Your task to perform on an android device: turn pop-ups on in chrome Image 0: 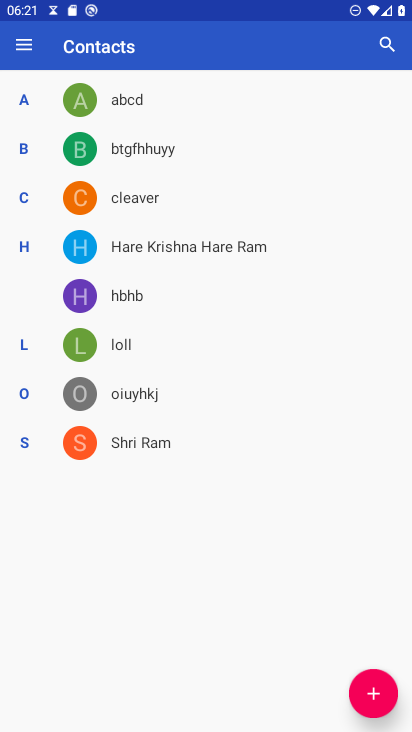
Step 0: press home button
Your task to perform on an android device: turn pop-ups on in chrome Image 1: 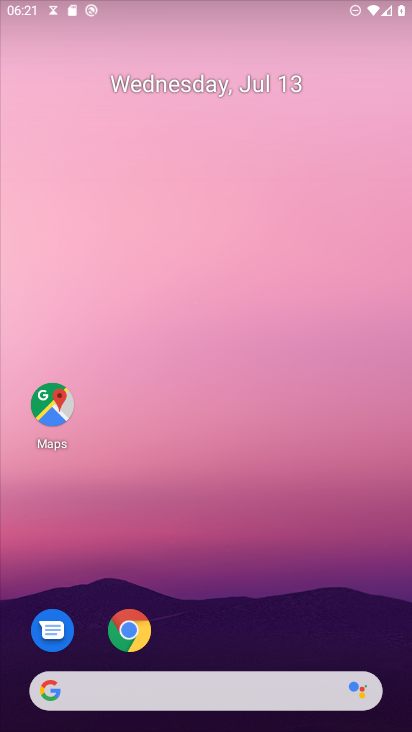
Step 1: drag from (315, 536) to (388, 16)
Your task to perform on an android device: turn pop-ups on in chrome Image 2: 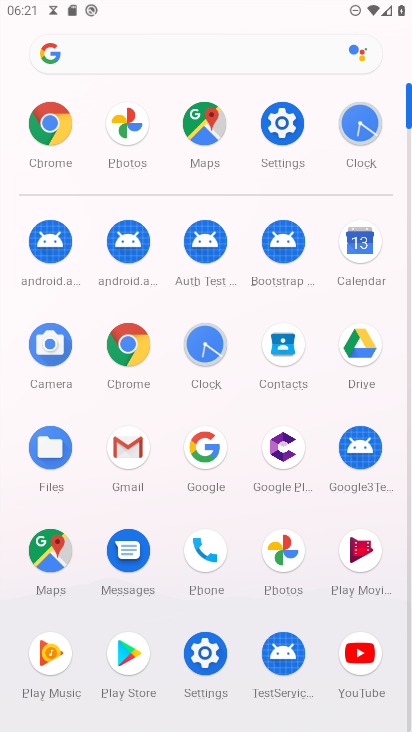
Step 2: click (126, 343)
Your task to perform on an android device: turn pop-ups on in chrome Image 3: 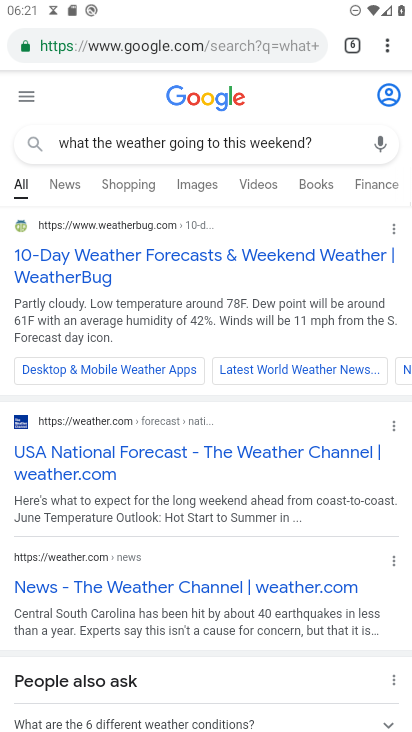
Step 3: drag from (390, 41) to (246, 513)
Your task to perform on an android device: turn pop-ups on in chrome Image 4: 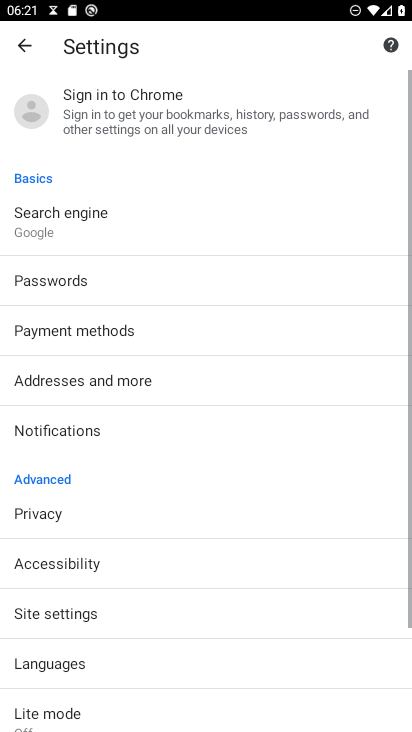
Step 4: drag from (191, 554) to (232, 290)
Your task to perform on an android device: turn pop-ups on in chrome Image 5: 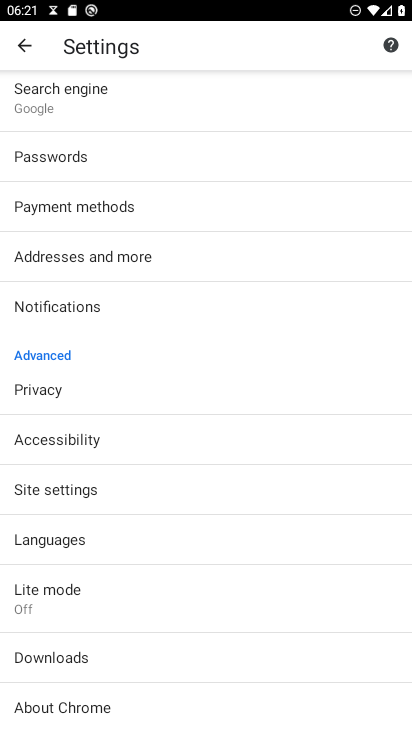
Step 5: click (79, 485)
Your task to perform on an android device: turn pop-ups on in chrome Image 6: 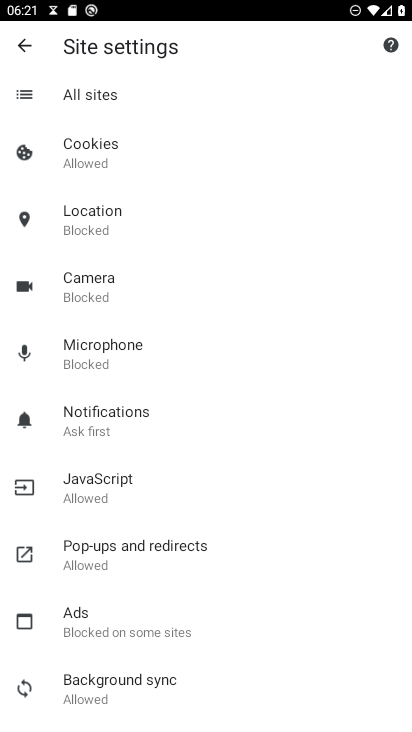
Step 6: click (151, 570)
Your task to perform on an android device: turn pop-ups on in chrome Image 7: 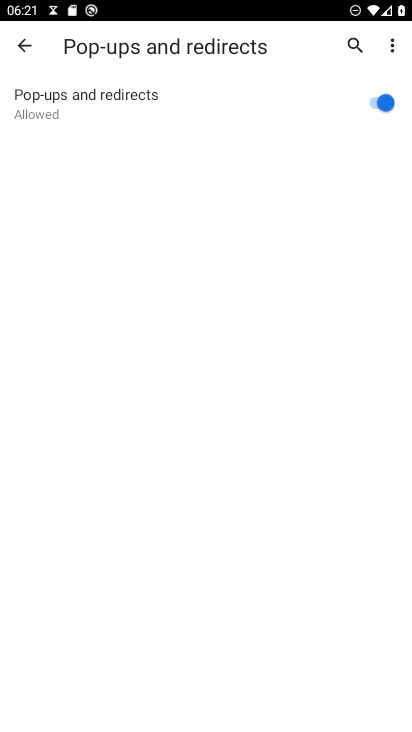
Step 7: task complete